Your task to perform on an android device: change text size in settings app Image 0: 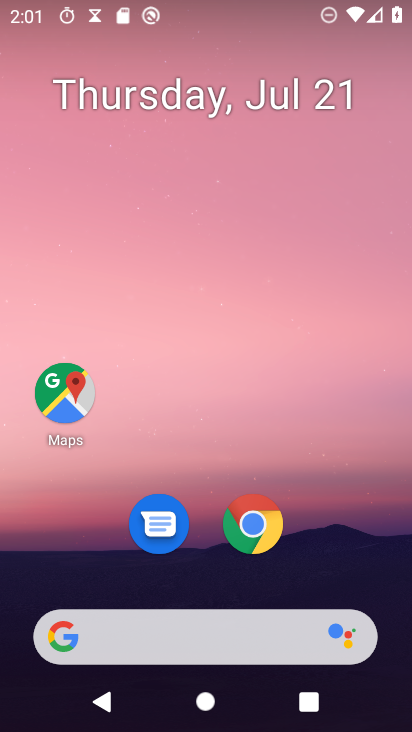
Step 0: press home button
Your task to perform on an android device: change text size in settings app Image 1: 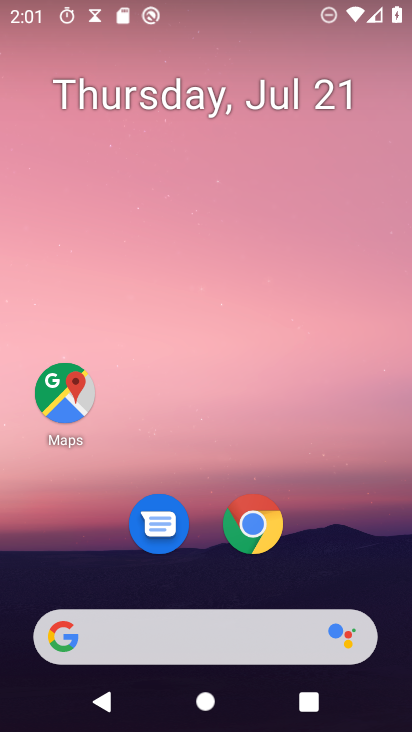
Step 1: drag from (206, 645) to (341, 180)
Your task to perform on an android device: change text size in settings app Image 2: 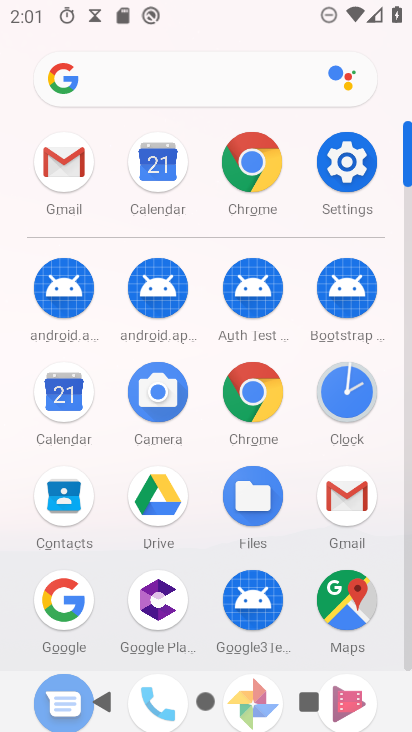
Step 2: click (349, 165)
Your task to perform on an android device: change text size in settings app Image 3: 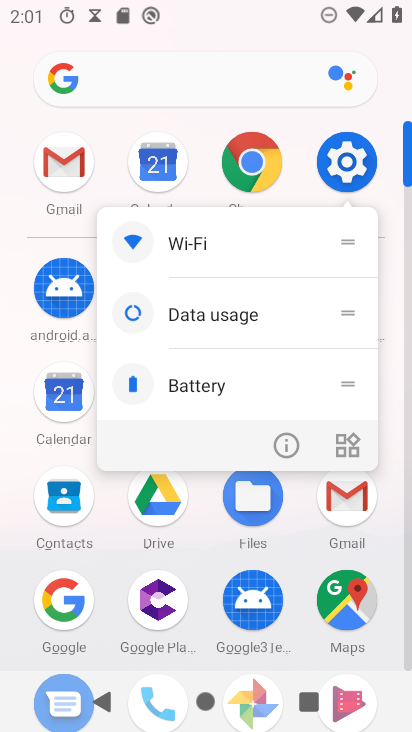
Step 3: click (349, 165)
Your task to perform on an android device: change text size in settings app Image 4: 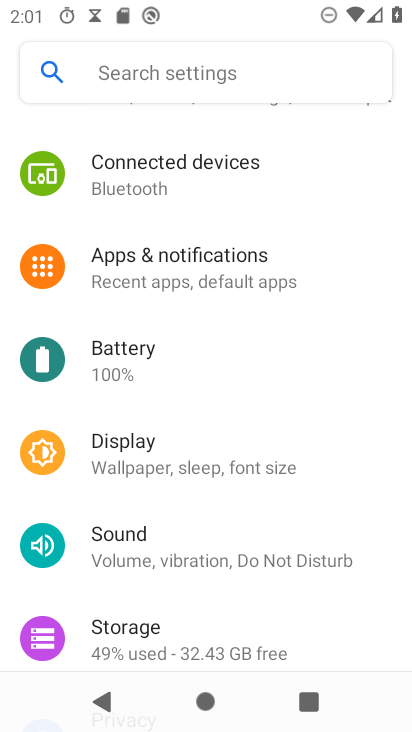
Step 4: click (190, 462)
Your task to perform on an android device: change text size in settings app Image 5: 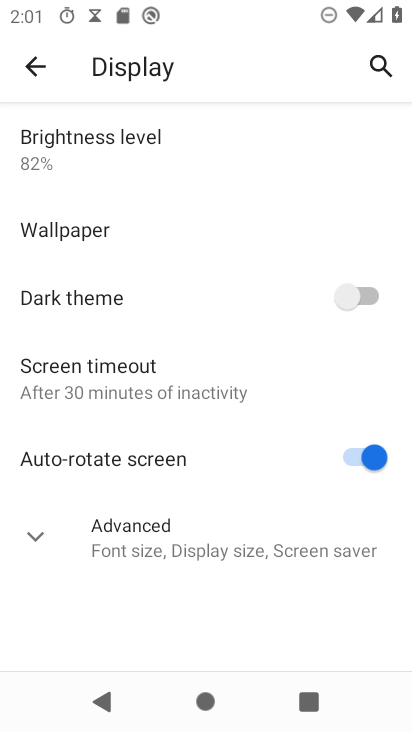
Step 5: click (200, 537)
Your task to perform on an android device: change text size in settings app Image 6: 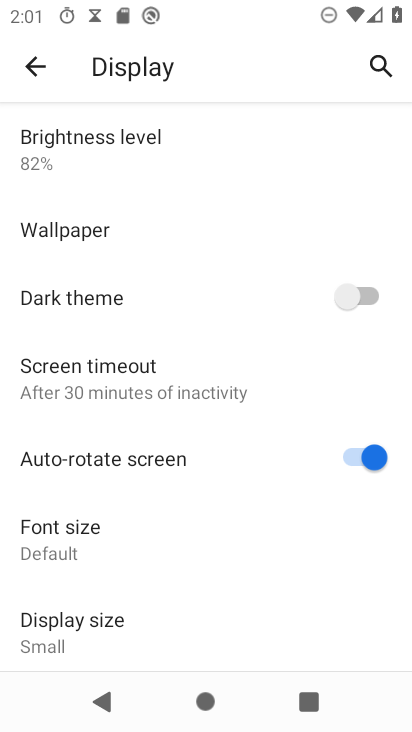
Step 6: click (75, 550)
Your task to perform on an android device: change text size in settings app Image 7: 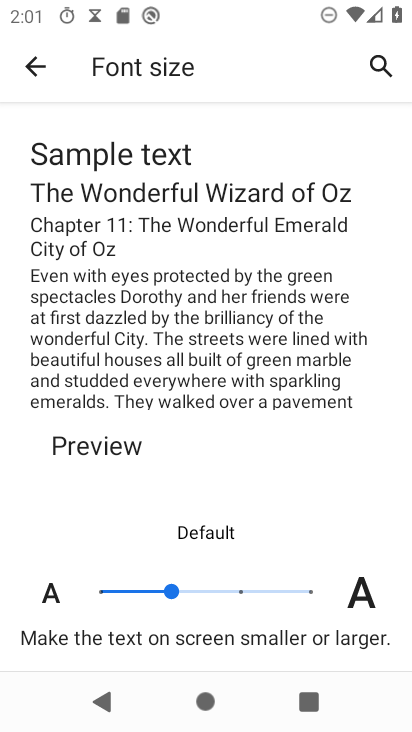
Step 7: click (102, 593)
Your task to perform on an android device: change text size in settings app Image 8: 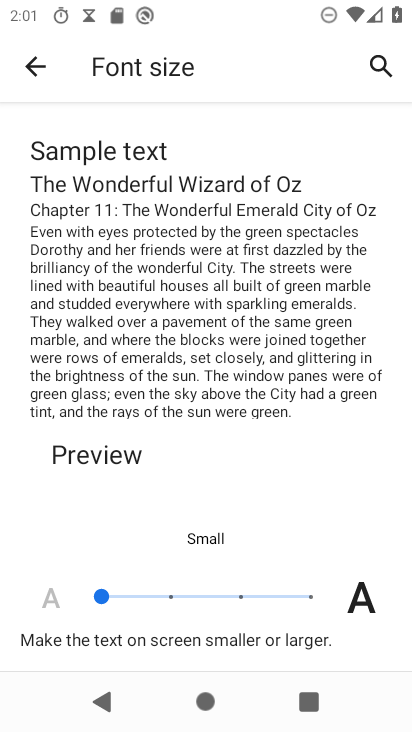
Step 8: task complete